Your task to perform on an android device: uninstall "Google Keep" Image 0: 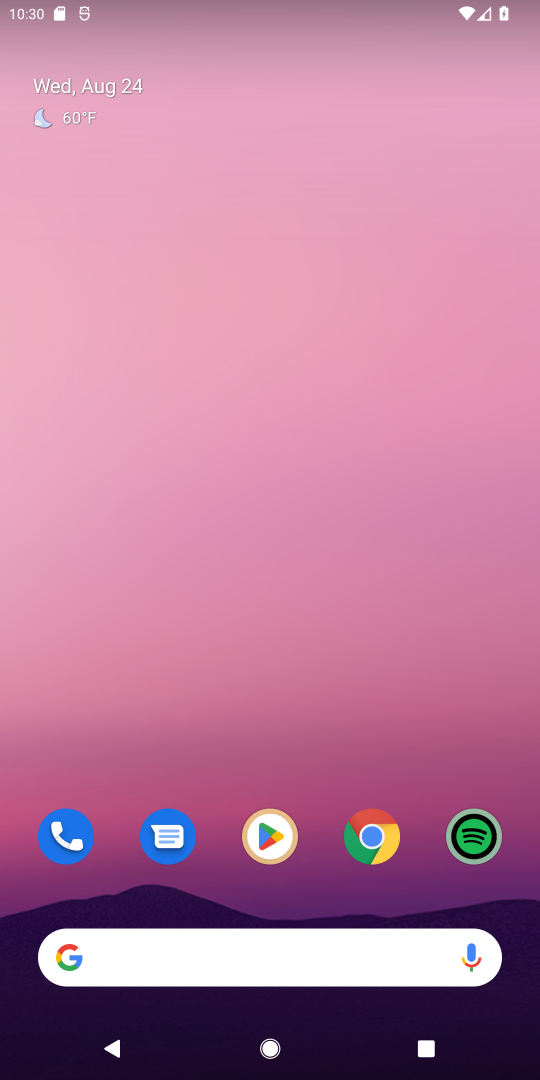
Step 0: click (267, 846)
Your task to perform on an android device: uninstall "Google Keep" Image 1: 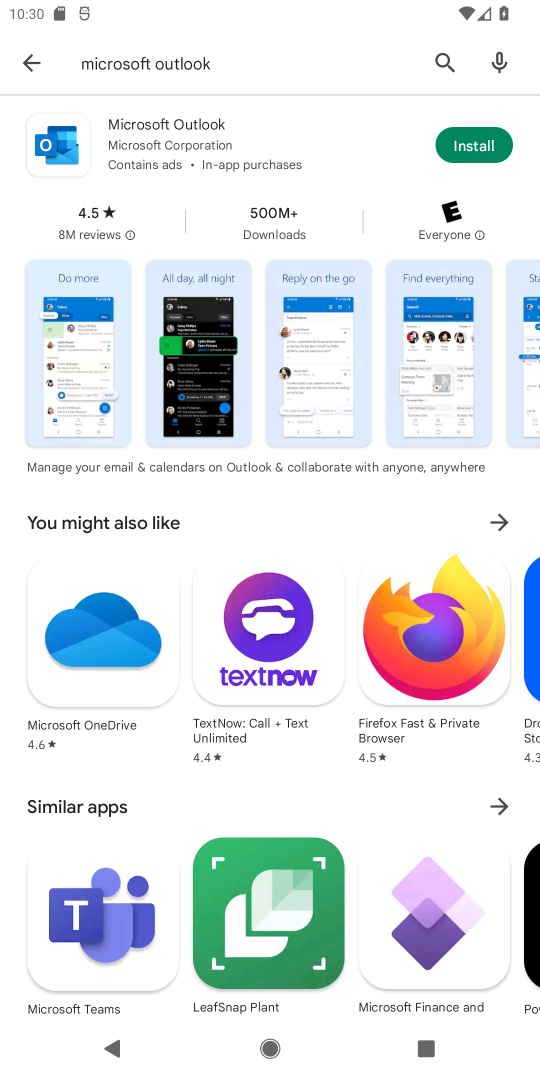
Step 1: click (477, 58)
Your task to perform on an android device: uninstall "Google Keep" Image 2: 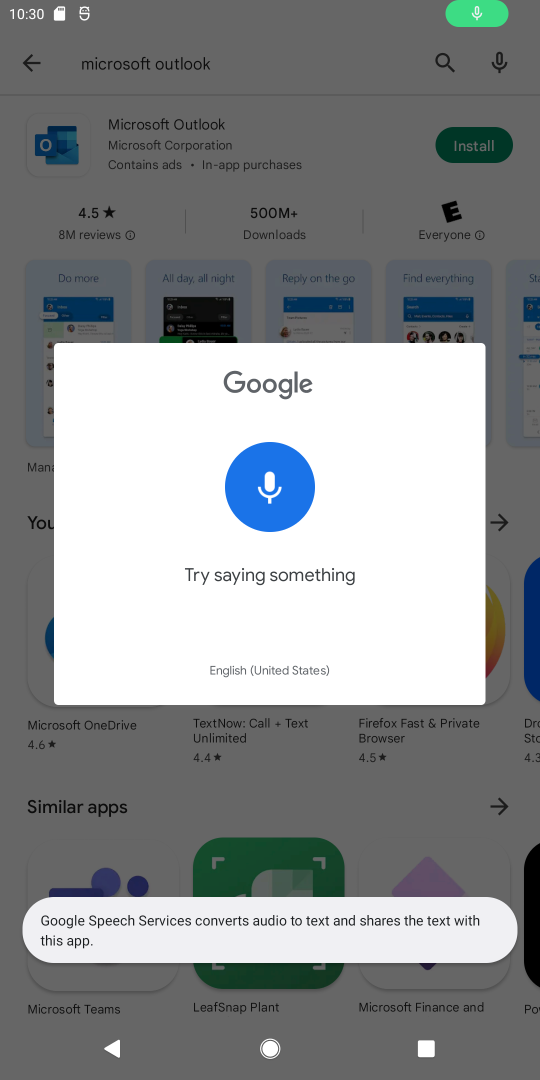
Step 2: click (414, 63)
Your task to perform on an android device: uninstall "Google Keep" Image 3: 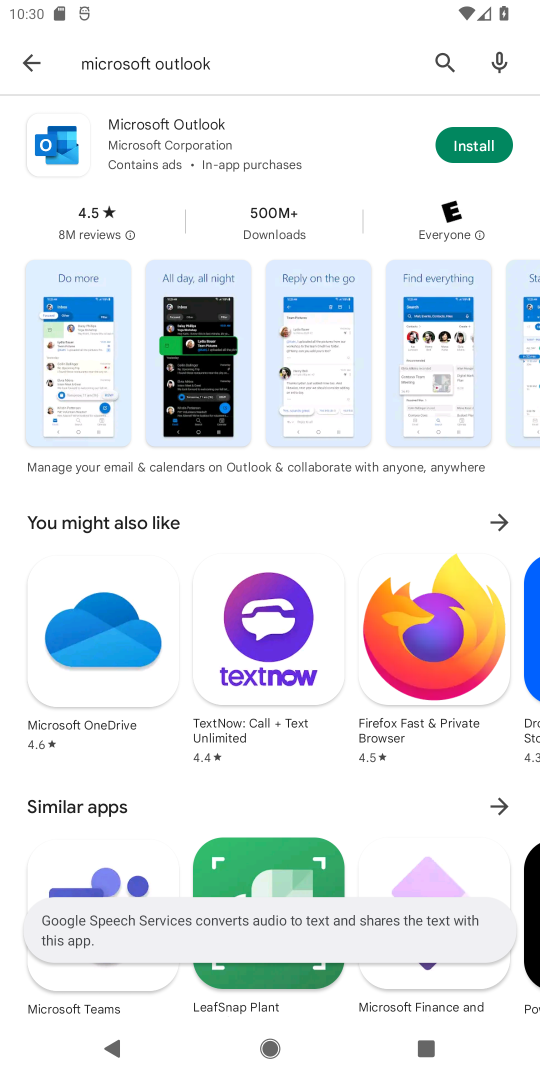
Step 3: click (421, 63)
Your task to perform on an android device: uninstall "Google Keep" Image 4: 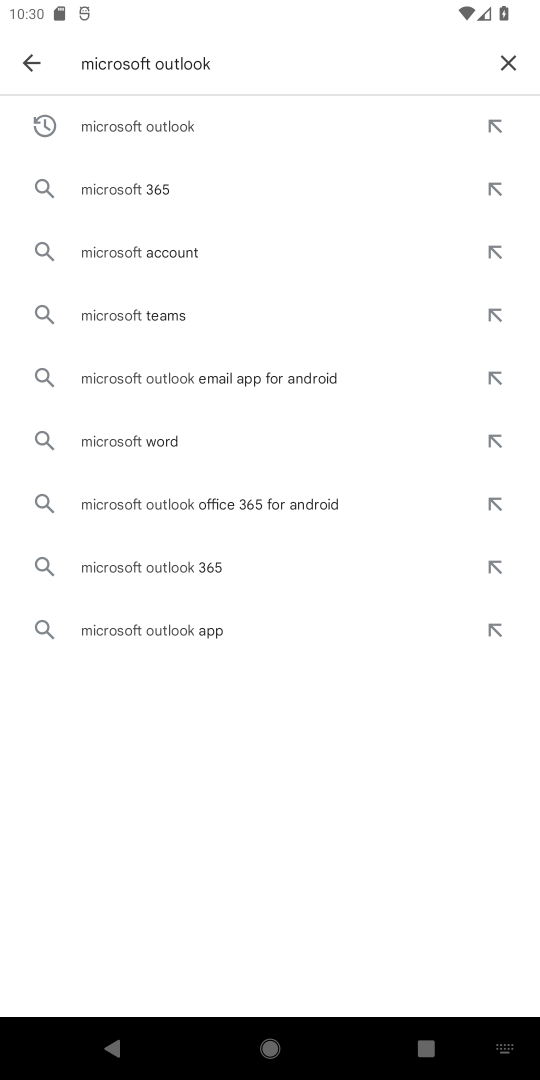
Step 4: click (495, 60)
Your task to perform on an android device: uninstall "Google Keep" Image 5: 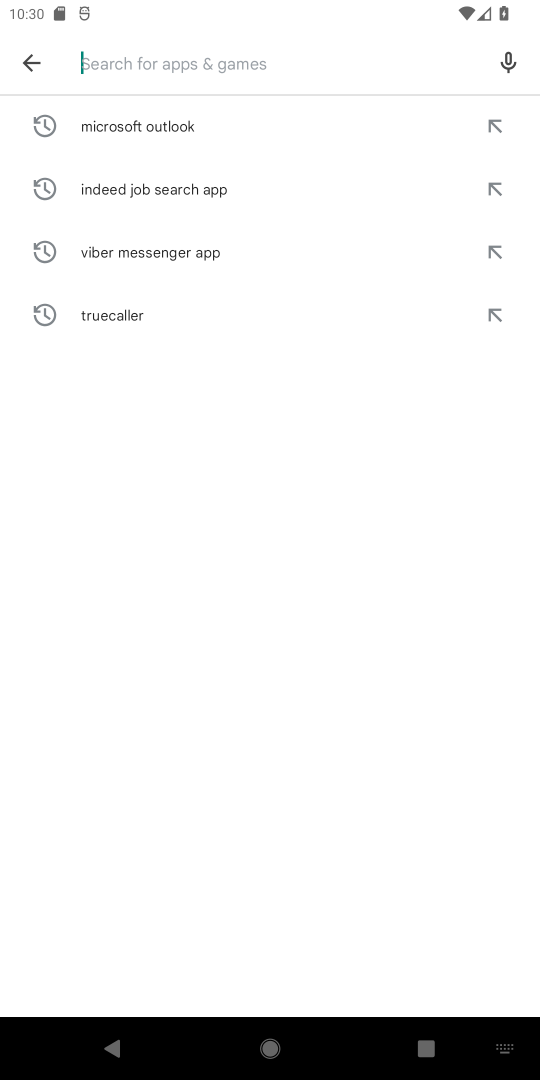
Step 5: type "Google Keep"
Your task to perform on an android device: uninstall "Google Keep" Image 6: 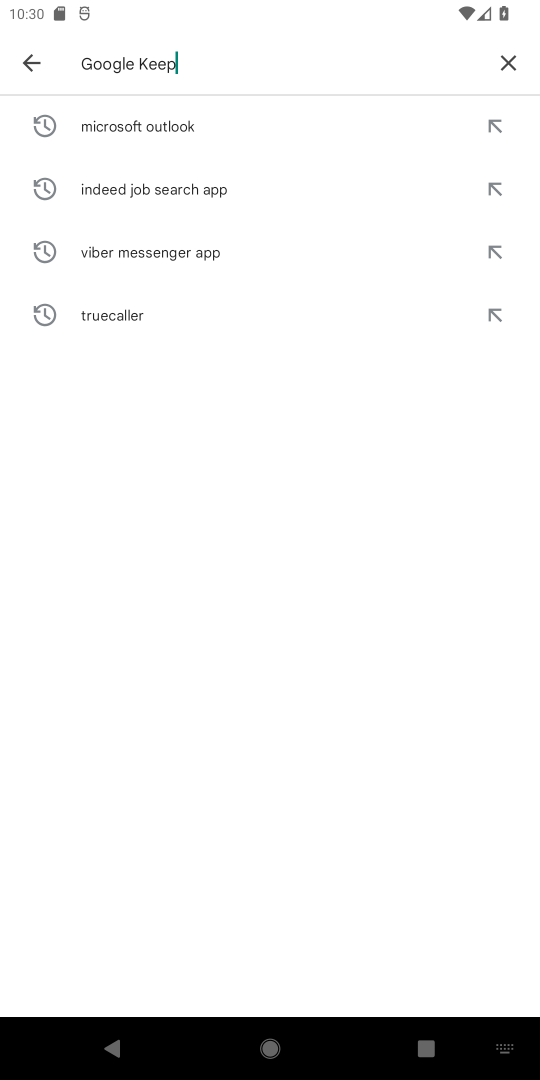
Step 6: type ""
Your task to perform on an android device: uninstall "Google Keep" Image 7: 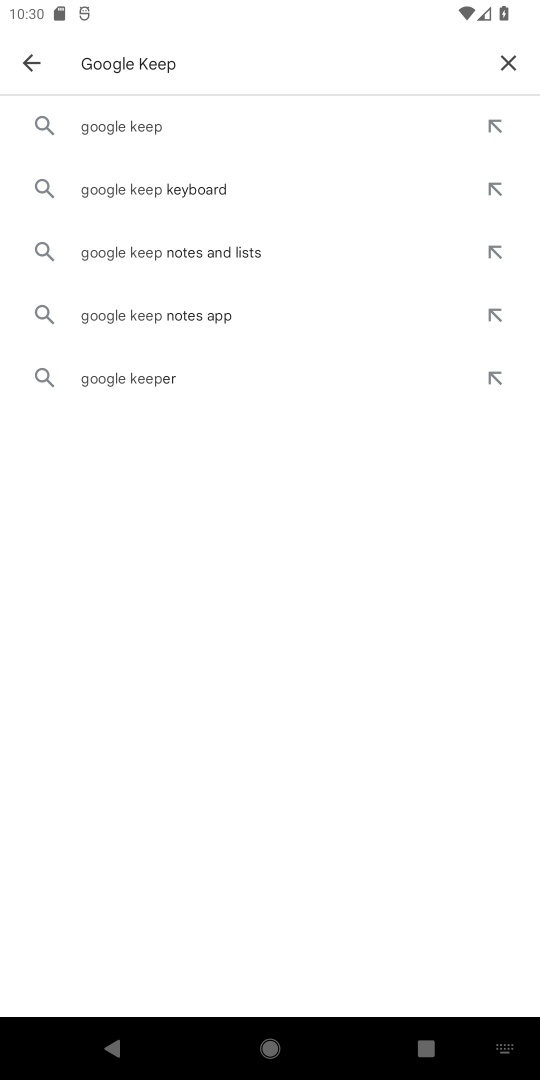
Step 7: click (157, 131)
Your task to perform on an android device: uninstall "Google Keep" Image 8: 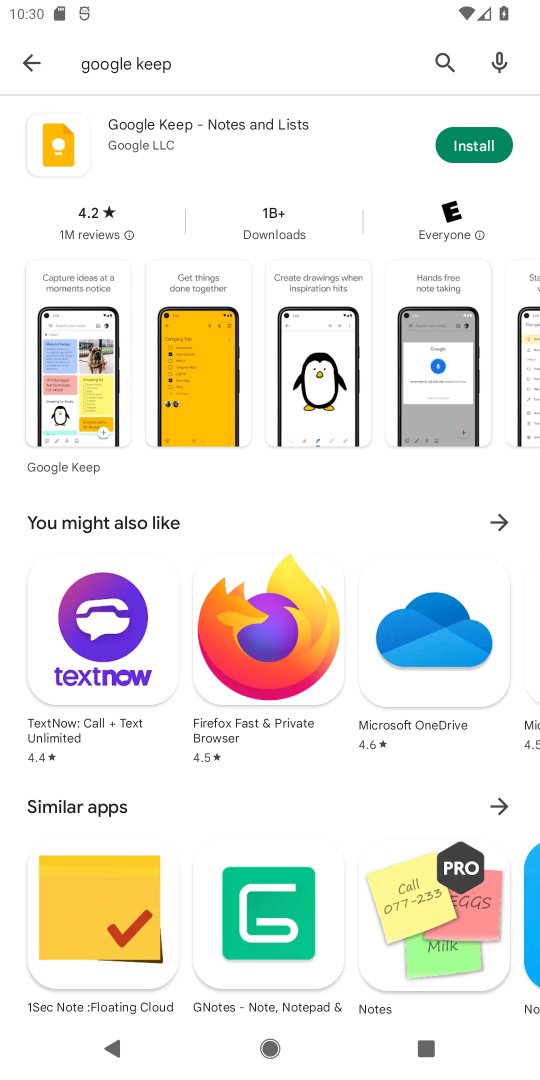
Step 8: task complete